Your task to perform on an android device: change notifications settings Image 0: 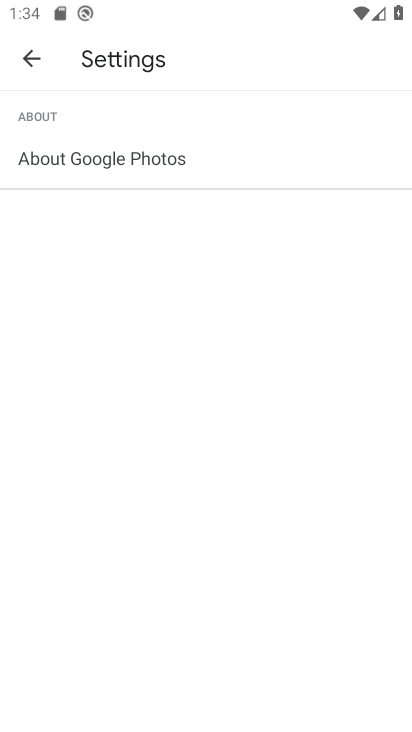
Step 0: press home button
Your task to perform on an android device: change notifications settings Image 1: 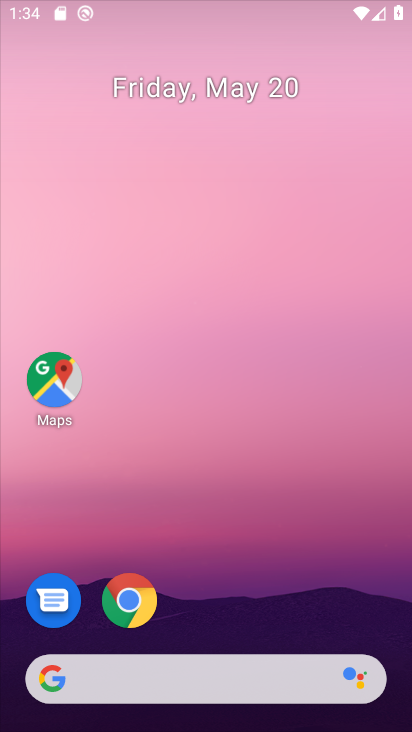
Step 1: drag from (261, 369) to (170, 6)
Your task to perform on an android device: change notifications settings Image 2: 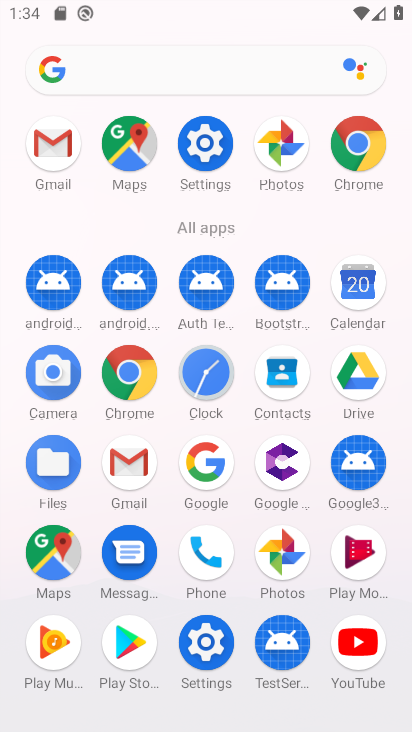
Step 2: click (199, 129)
Your task to perform on an android device: change notifications settings Image 3: 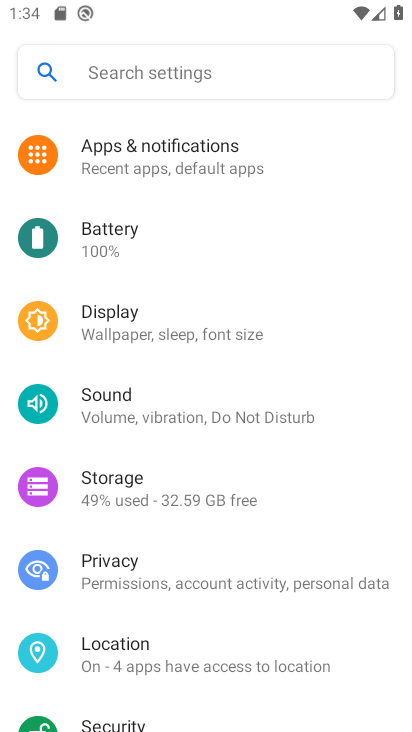
Step 3: click (220, 173)
Your task to perform on an android device: change notifications settings Image 4: 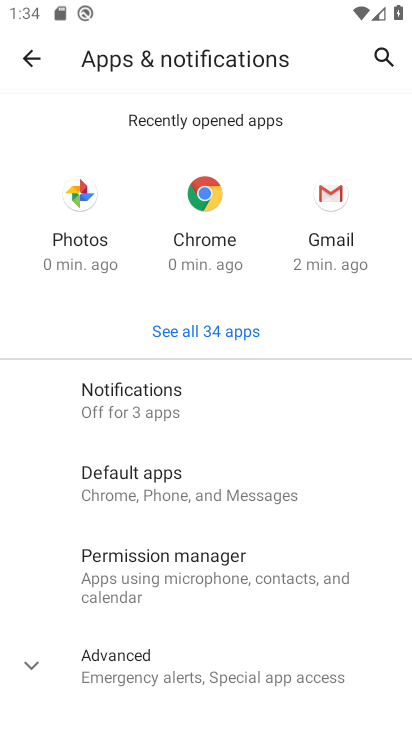
Step 4: click (156, 398)
Your task to perform on an android device: change notifications settings Image 5: 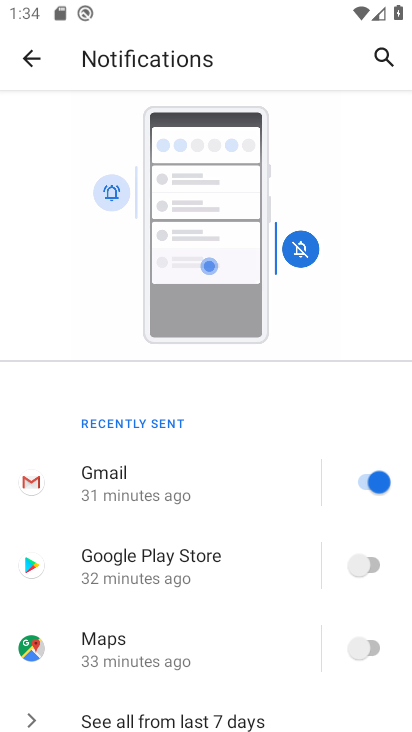
Step 5: click (299, 398)
Your task to perform on an android device: change notifications settings Image 6: 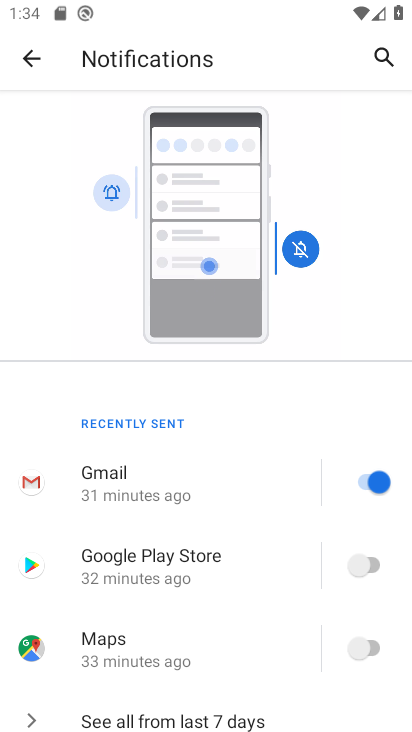
Step 6: click (370, 486)
Your task to perform on an android device: change notifications settings Image 7: 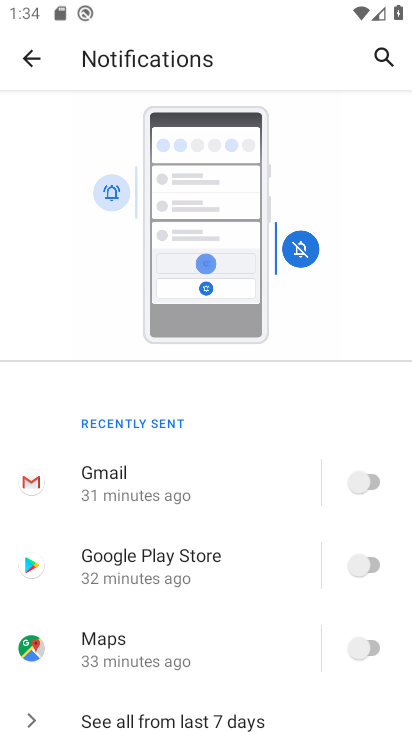
Step 7: task complete